Your task to perform on an android device: Open sound settings Image 0: 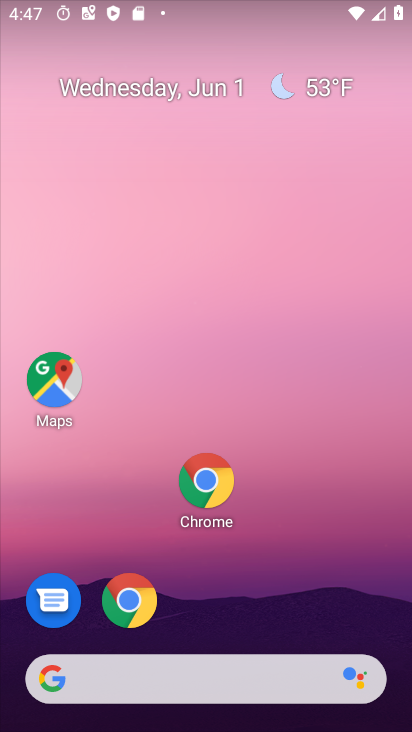
Step 0: drag from (320, 707) to (195, 143)
Your task to perform on an android device: Open sound settings Image 1: 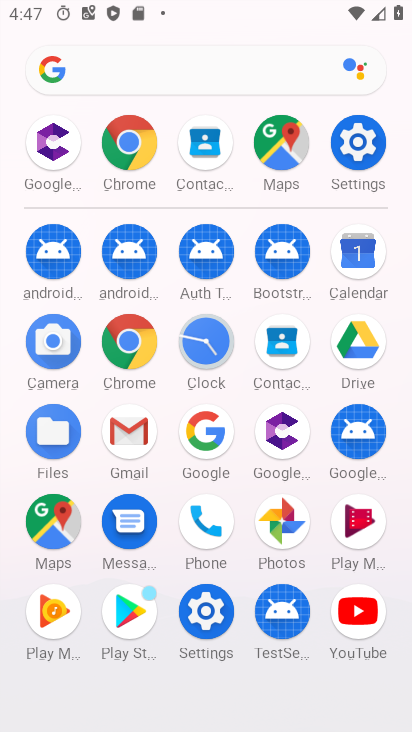
Step 1: click (364, 147)
Your task to perform on an android device: Open sound settings Image 2: 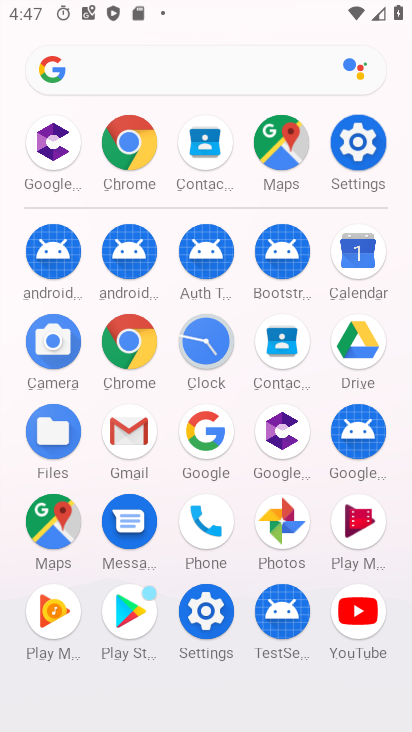
Step 2: click (364, 147)
Your task to perform on an android device: Open sound settings Image 3: 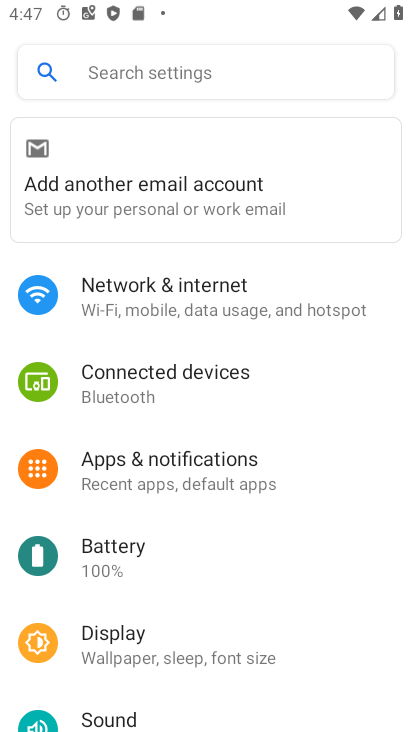
Step 3: drag from (136, 559) to (126, 265)
Your task to perform on an android device: Open sound settings Image 4: 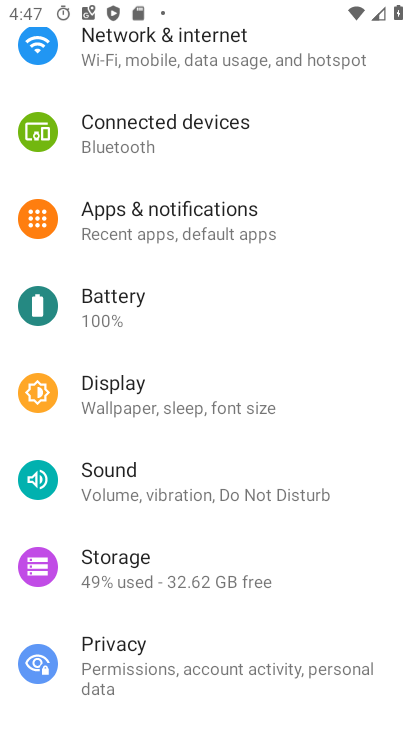
Step 4: drag from (209, 536) to (127, 215)
Your task to perform on an android device: Open sound settings Image 5: 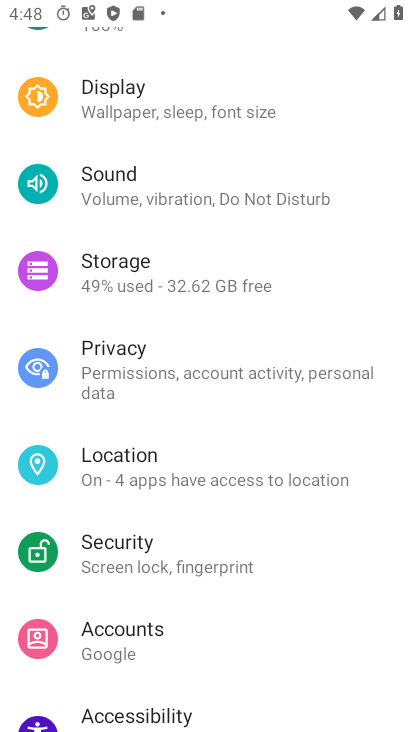
Step 5: click (106, 187)
Your task to perform on an android device: Open sound settings Image 6: 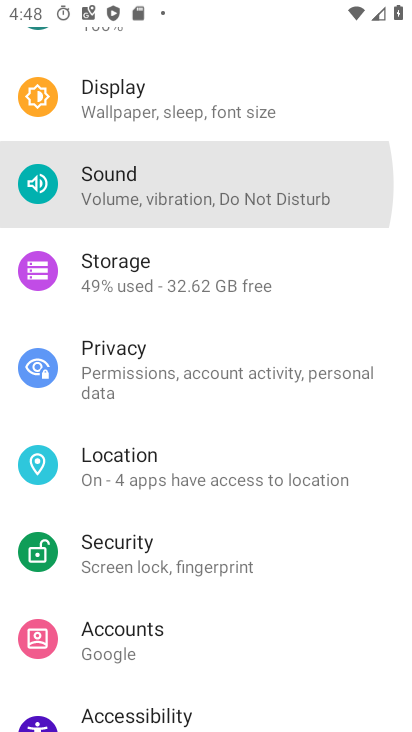
Step 6: click (106, 187)
Your task to perform on an android device: Open sound settings Image 7: 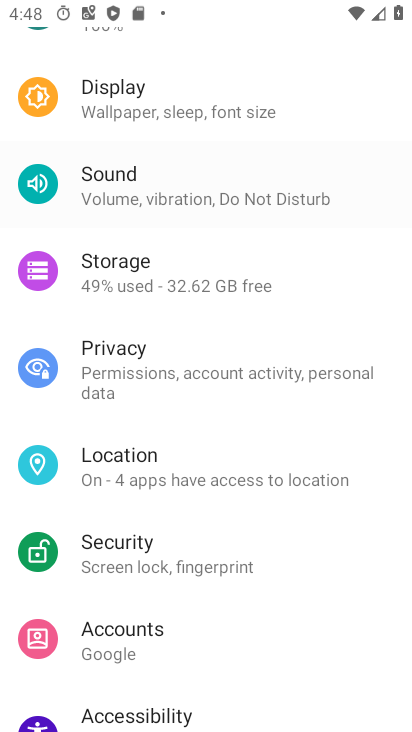
Step 7: click (105, 187)
Your task to perform on an android device: Open sound settings Image 8: 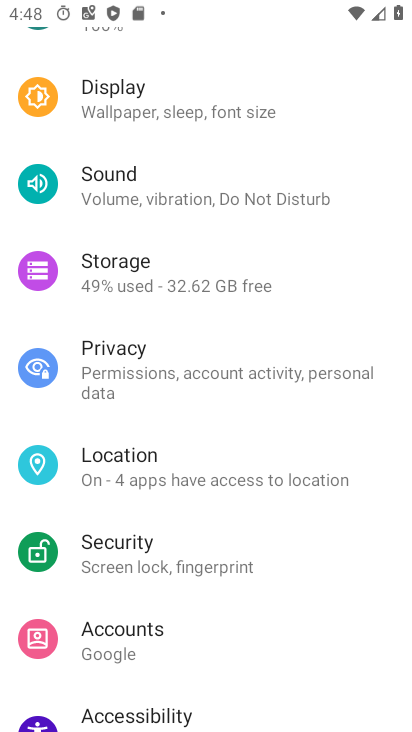
Step 8: click (105, 187)
Your task to perform on an android device: Open sound settings Image 9: 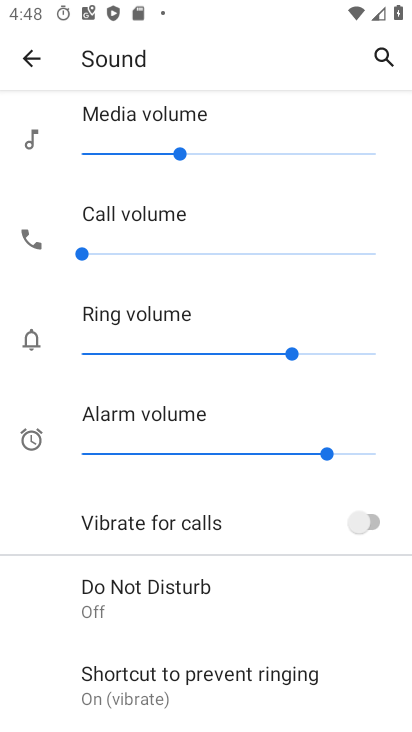
Step 9: drag from (133, 463) to (105, 154)
Your task to perform on an android device: Open sound settings Image 10: 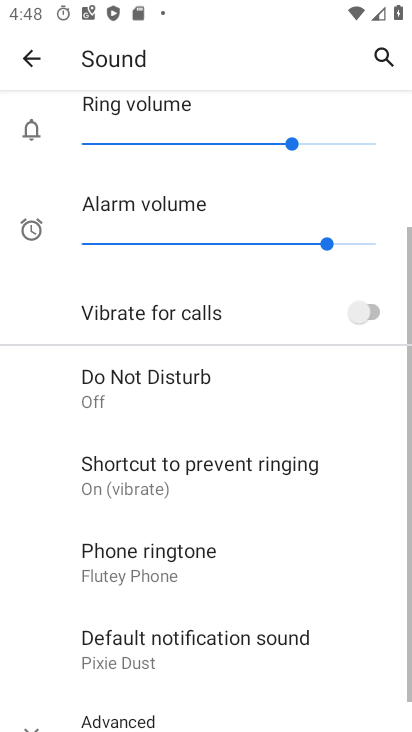
Step 10: drag from (138, 501) to (86, 227)
Your task to perform on an android device: Open sound settings Image 11: 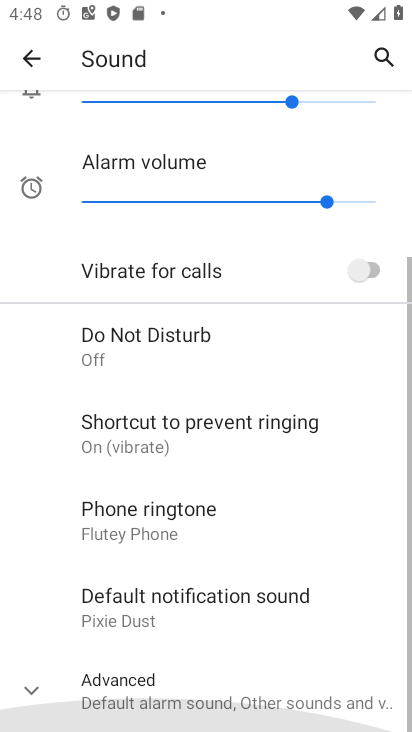
Step 11: drag from (182, 500) to (113, 193)
Your task to perform on an android device: Open sound settings Image 12: 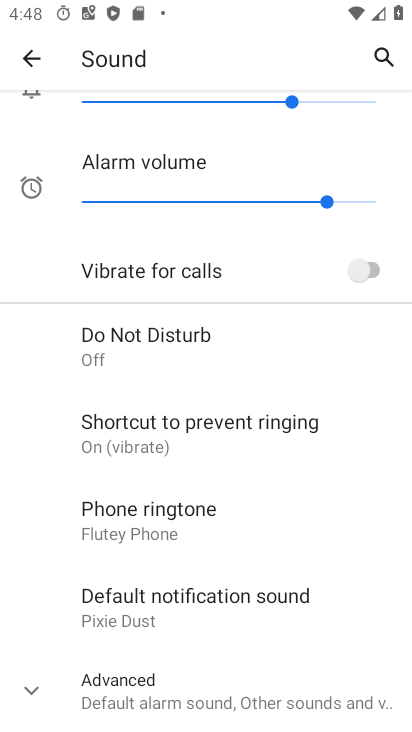
Step 12: click (106, 350)
Your task to perform on an android device: Open sound settings Image 13: 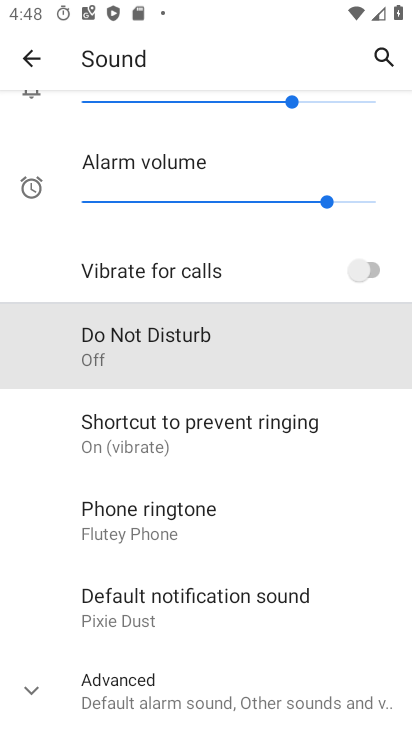
Step 13: click (106, 350)
Your task to perform on an android device: Open sound settings Image 14: 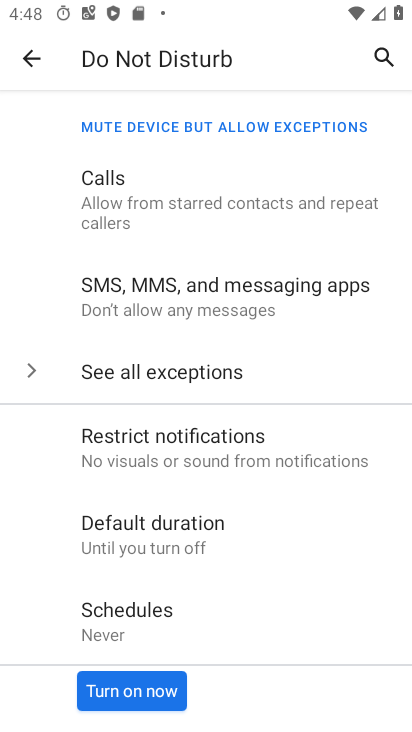
Step 14: click (140, 689)
Your task to perform on an android device: Open sound settings Image 15: 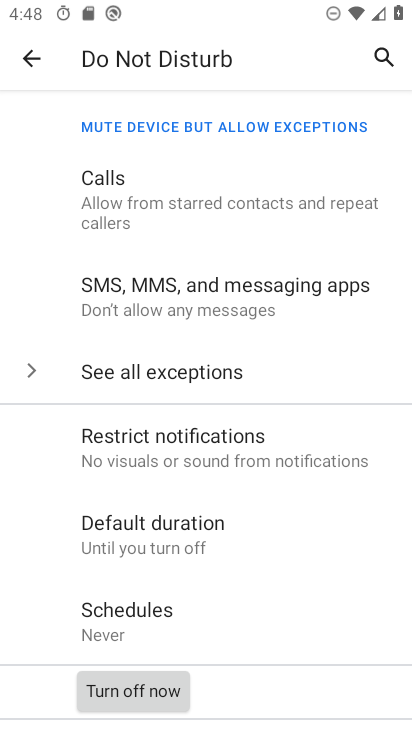
Step 15: task complete